Your task to perform on an android device: empty trash in google photos Image 0: 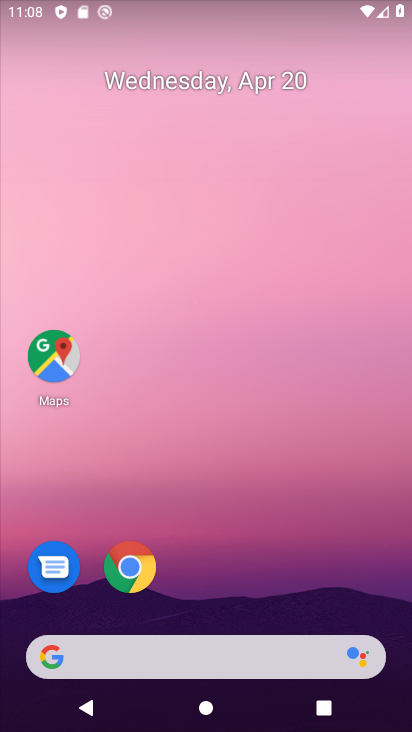
Step 0: drag from (303, 606) to (334, 99)
Your task to perform on an android device: empty trash in google photos Image 1: 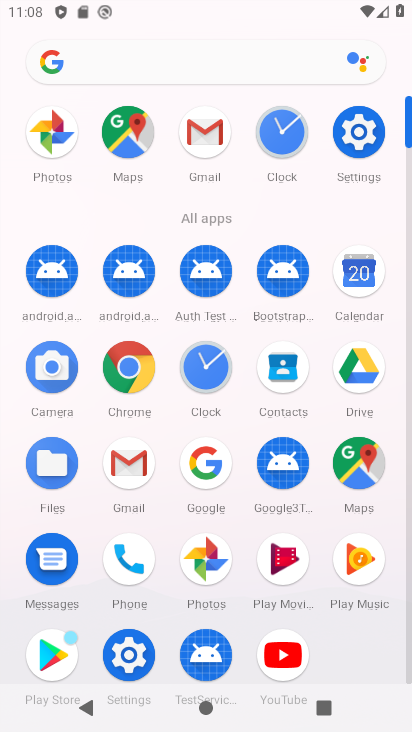
Step 1: click (188, 144)
Your task to perform on an android device: empty trash in google photos Image 2: 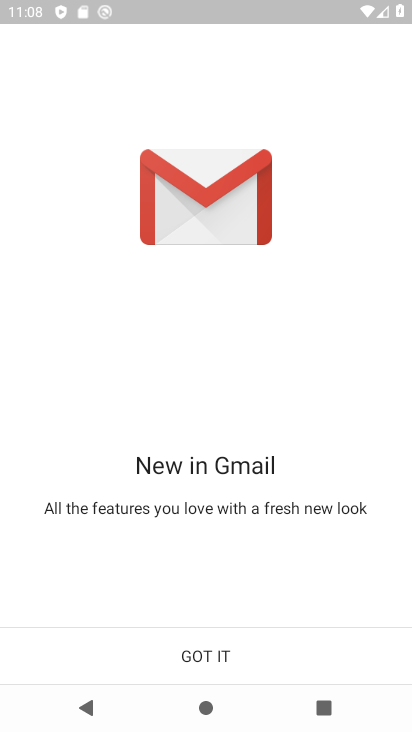
Step 2: click (197, 661)
Your task to perform on an android device: empty trash in google photos Image 3: 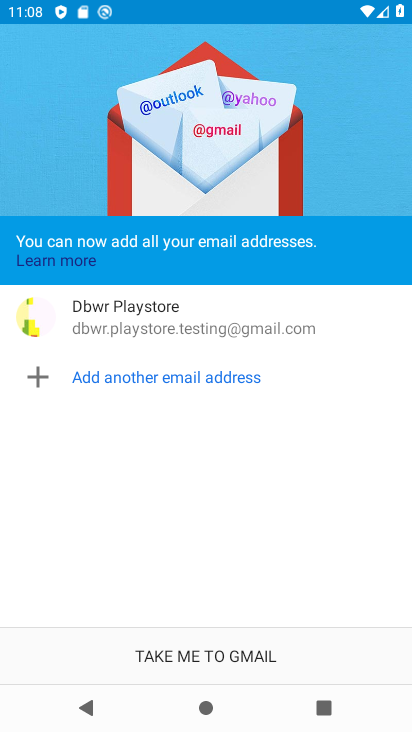
Step 3: click (192, 661)
Your task to perform on an android device: empty trash in google photos Image 4: 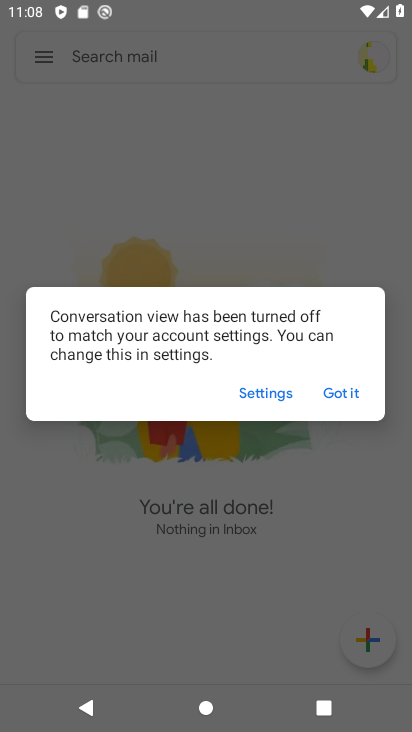
Step 4: click (348, 400)
Your task to perform on an android device: empty trash in google photos Image 5: 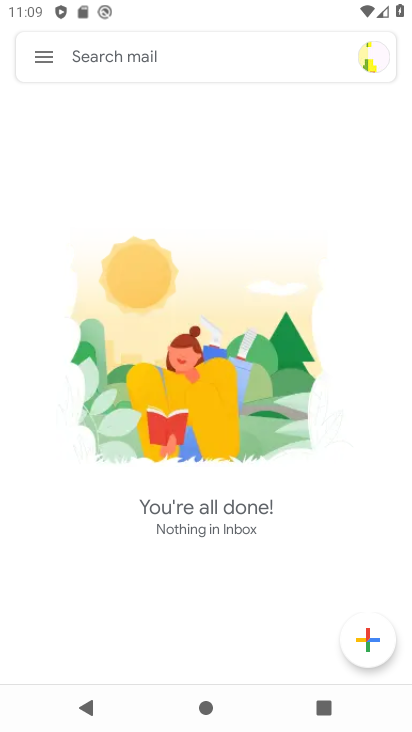
Step 5: press back button
Your task to perform on an android device: empty trash in google photos Image 6: 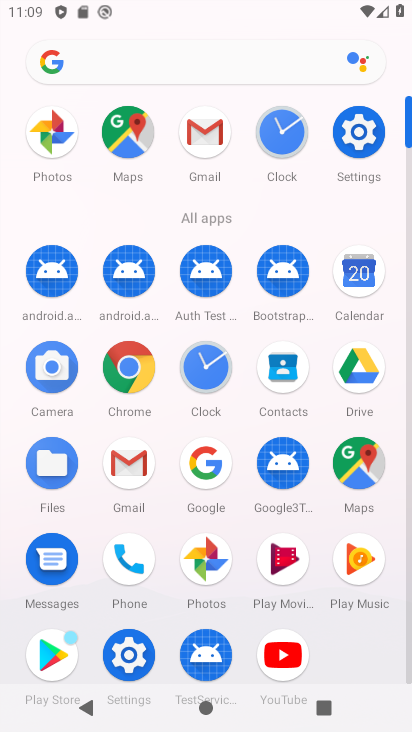
Step 6: click (55, 132)
Your task to perform on an android device: empty trash in google photos Image 7: 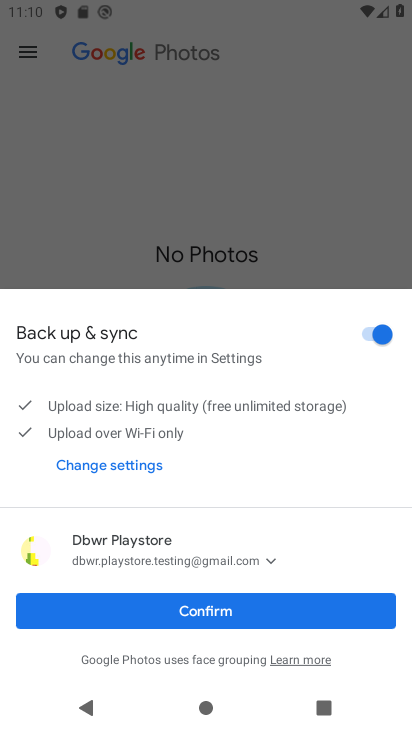
Step 7: click (240, 604)
Your task to perform on an android device: empty trash in google photos Image 8: 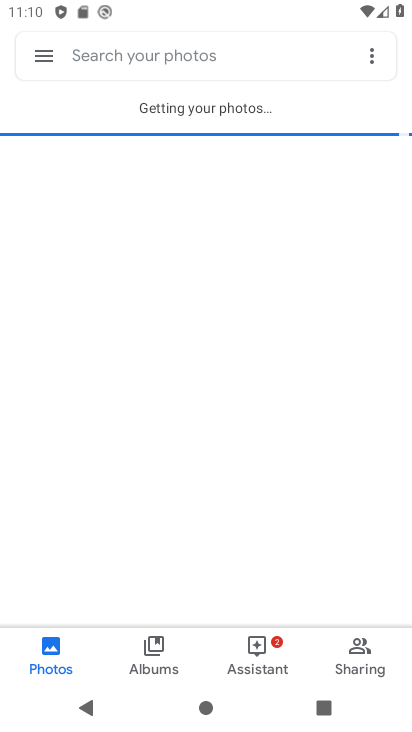
Step 8: click (47, 56)
Your task to perform on an android device: empty trash in google photos Image 9: 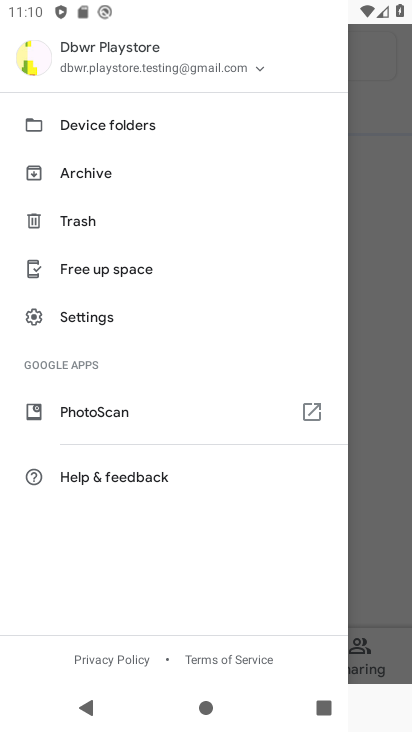
Step 9: click (86, 220)
Your task to perform on an android device: empty trash in google photos Image 10: 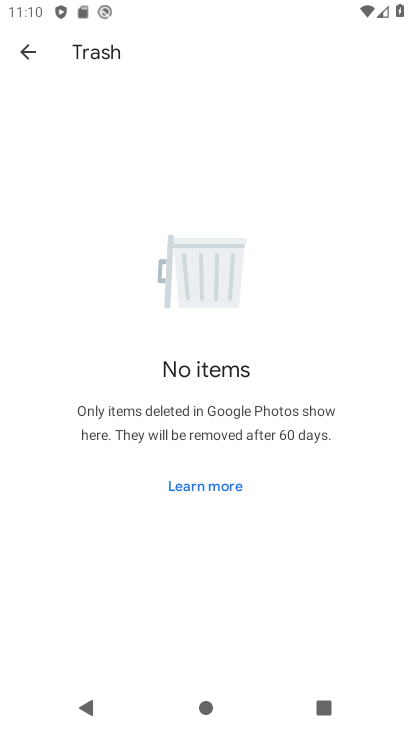
Step 10: task complete